Your task to perform on an android device: Open maps Image 0: 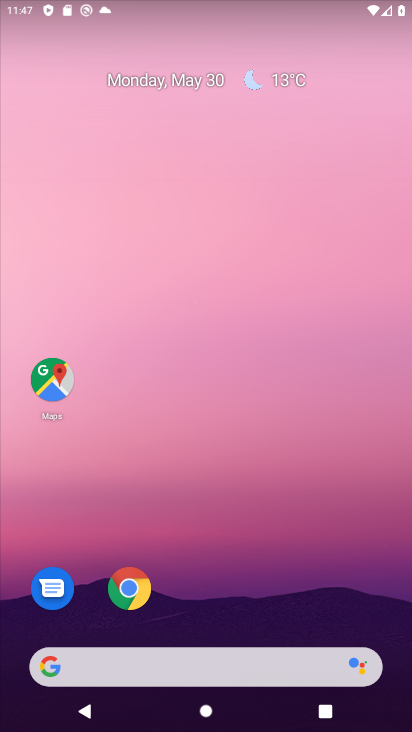
Step 0: click (67, 373)
Your task to perform on an android device: Open maps Image 1: 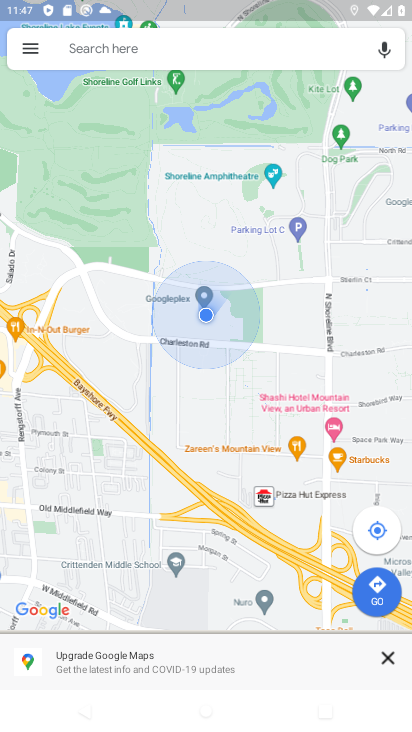
Step 1: task complete